Your task to perform on an android device: add a label to a message in the gmail app Image 0: 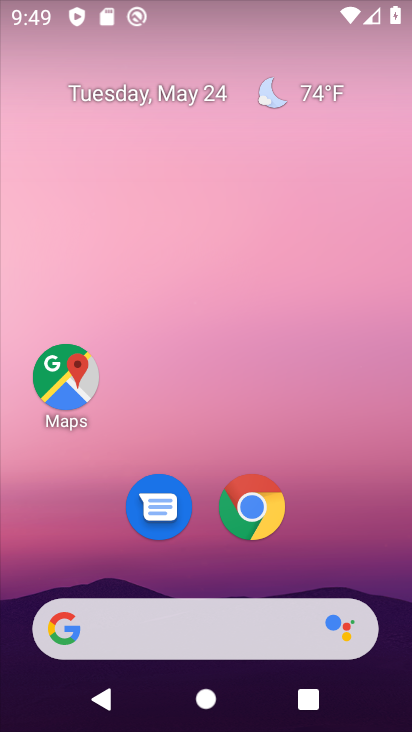
Step 0: click (225, 113)
Your task to perform on an android device: add a label to a message in the gmail app Image 1: 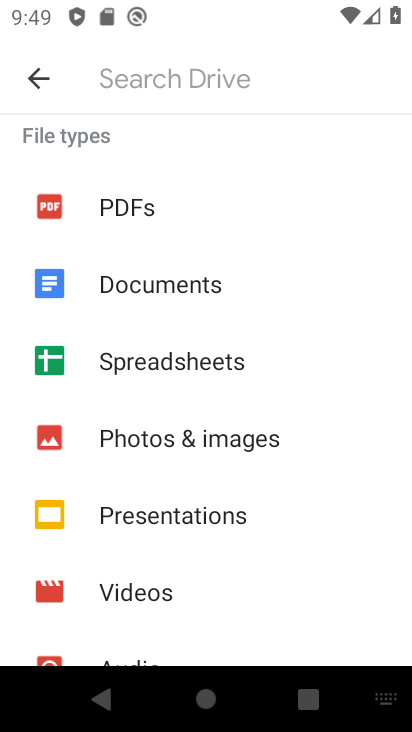
Step 1: press home button
Your task to perform on an android device: add a label to a message in the gmail app Image 2: 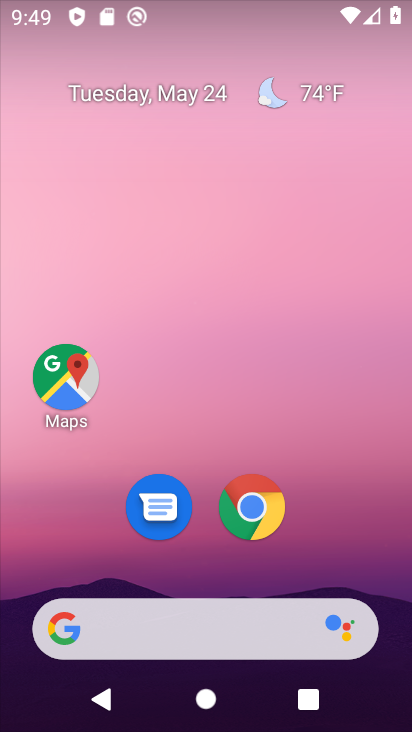
Step 2: drag from (229, 722) to (234, 289)
Your task to perform on an android device: add a label to a message in the gmail app Image 3: 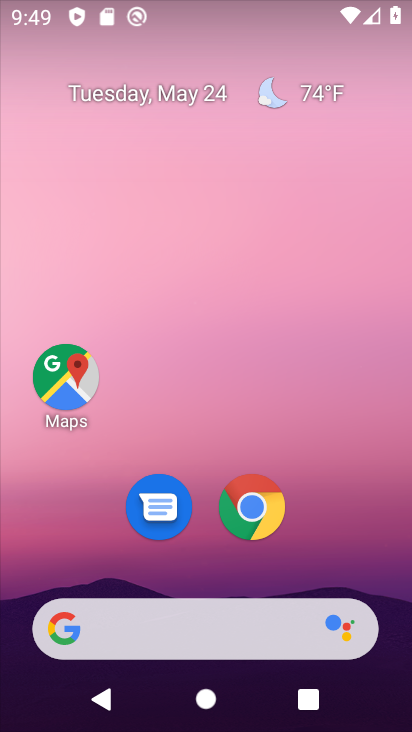
Step 3: drag from (221, 719) to (231, 86)
Your task to perform on an android device: add a label to a message in the gmail app Image 4: 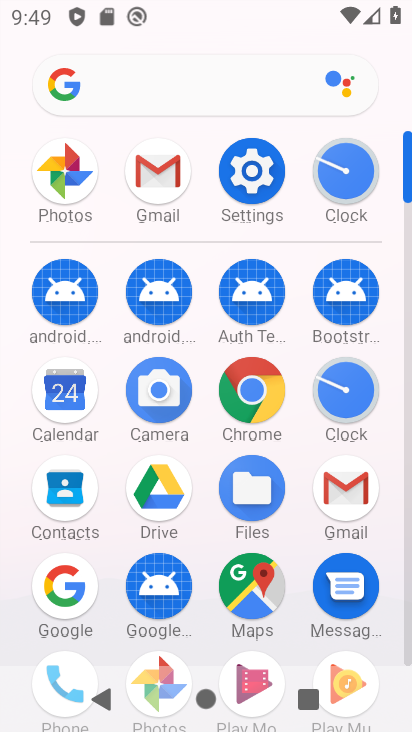
Step 4: click (341, 489)
Your task to perform on an android device: add a label to a message in the gmail app Image 5: 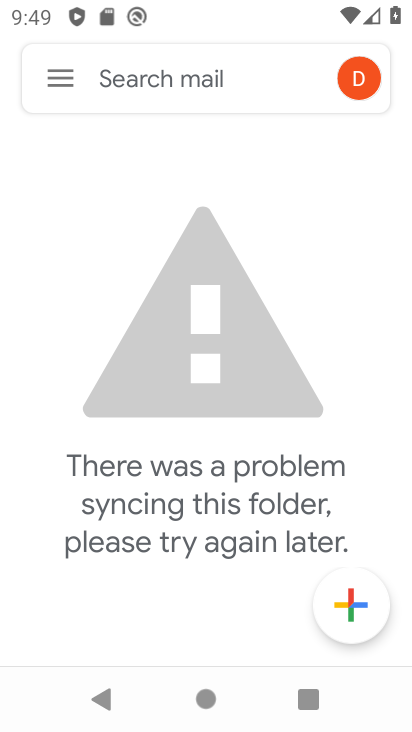
Step 5: click (60, 76)
Your task to perform on an android device: add a label to a message in the gmail app Image 6: 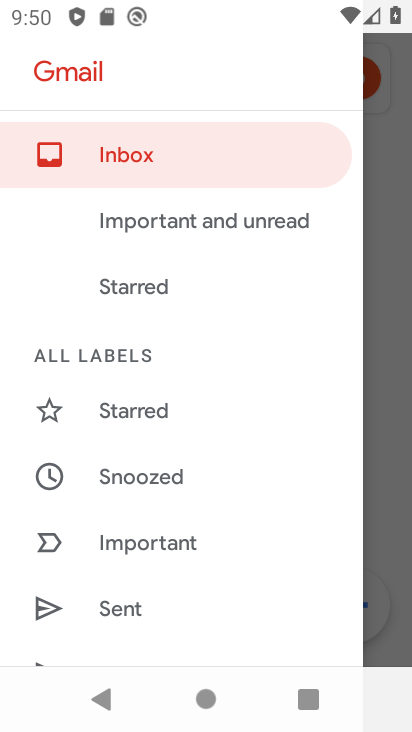
Step 6: drag from (153, 624) to (122, 150)
Your task to perform on an android device: add a label to a message in the gmail app Image 7: 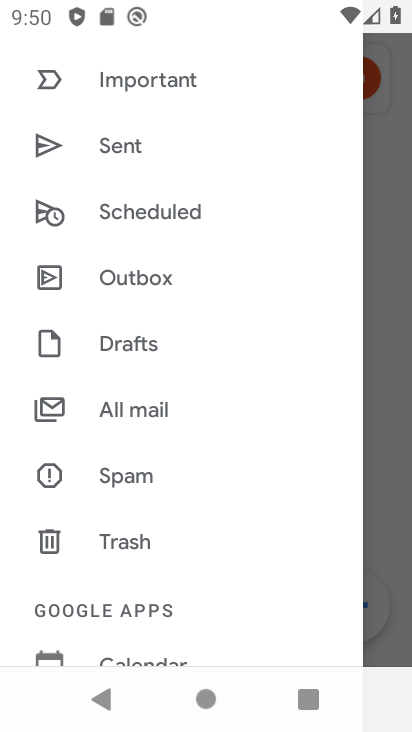
Step 7: drag from (147, 604) to (140, 266)
Your task to perform on an android device: add a label to a message in the gmail app Image 8: 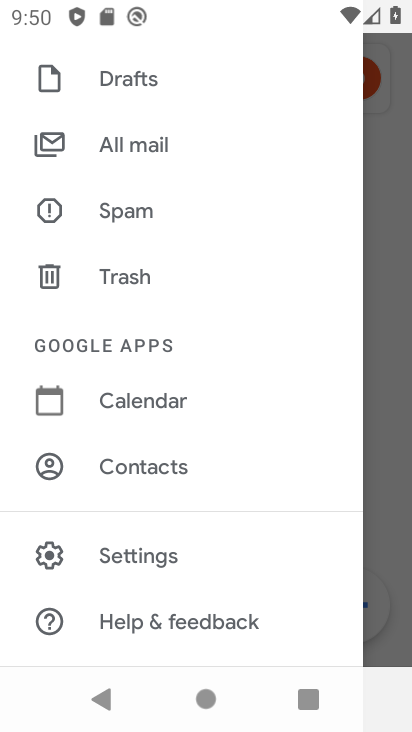
Step 8: drag from (168, 596) to (167, 245)
Your task to perform on an android device: add a label to a message in the gmail app Image 9: 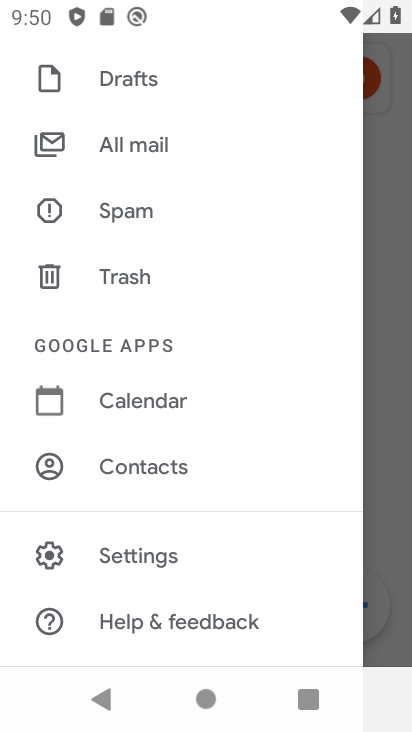
Step 9: drag from (181, 127) to (168, 524)
Your task to perform on an android device: add a label to a message in the gmail app Image 10: 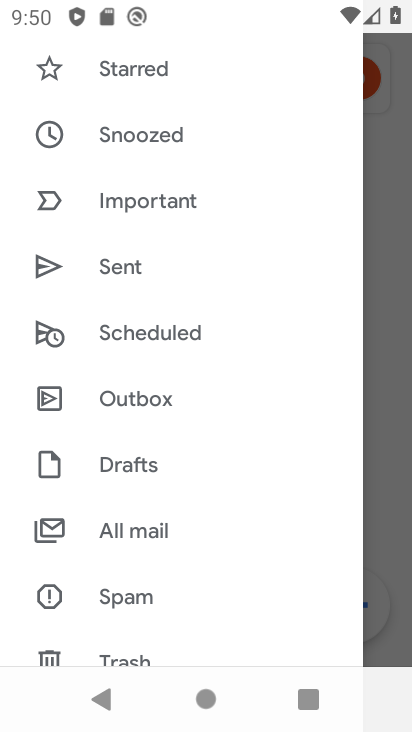
Step 10: drag from (185, 108) to (191, 544)
Your task to perform on an android device: add a label to a message in the gmail app Image 11: 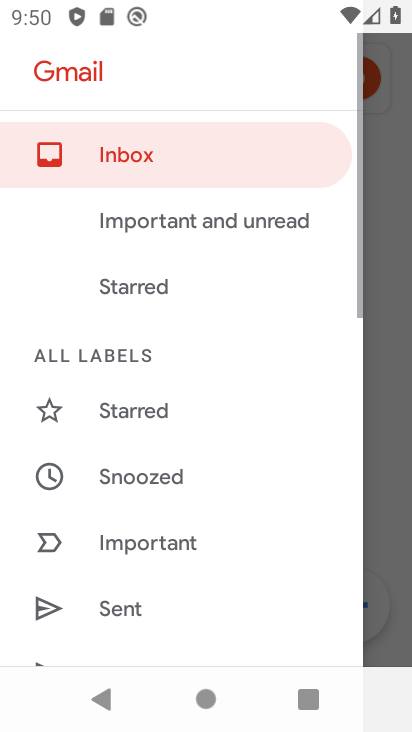
Step 11: click (148, 154)
Your task to perform on an android device: add a label to a message in the gmail app Image 12: 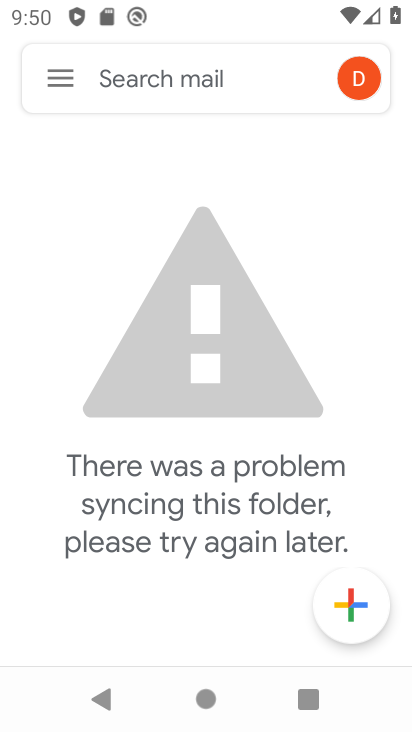
Step 12: task complete